Your task to perform on an android device: turn off location Image 0: 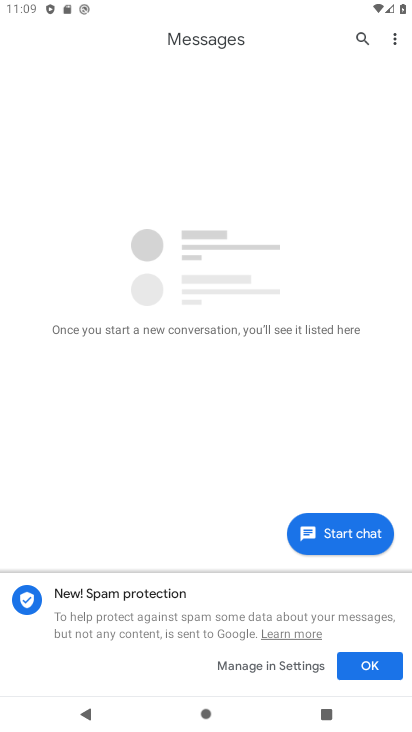
Step 0: press home button
Your task to perform on an android device: turn off location Image 1: 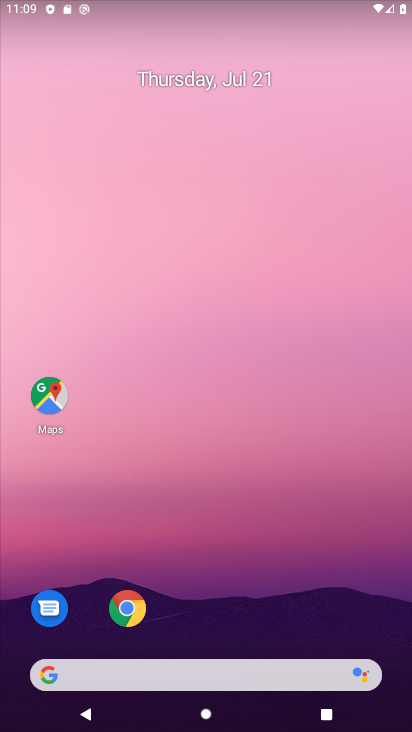
Step 1: press home button
Your task to perform on an android device: turn off location Image 2: 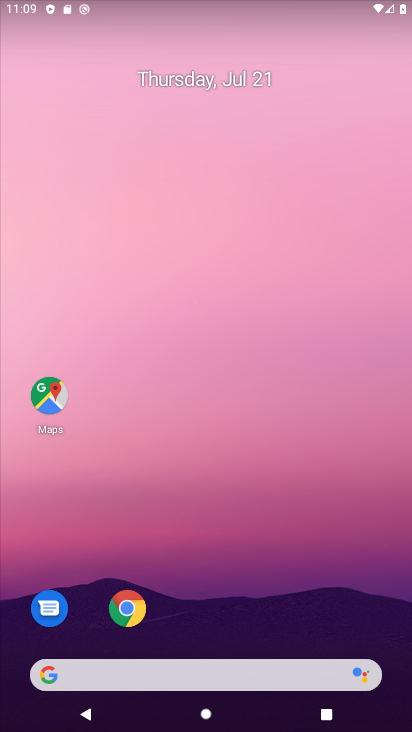
Step 2: drag from (187, 622) to (195, 17)
Your task to perform on an android device: turn off location Image 3: 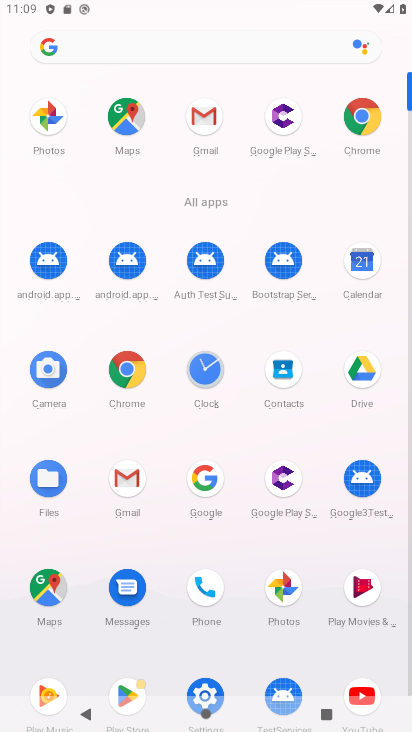
Step 3: click (211, 677)
Your task to perform on an android device: turn off location Image 4: 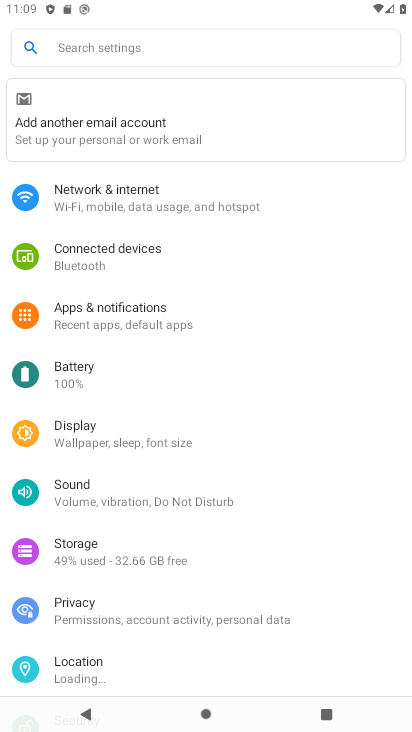
Step 4: click (92, 661)
Your task to perform on an android device: turn off location Image 5: 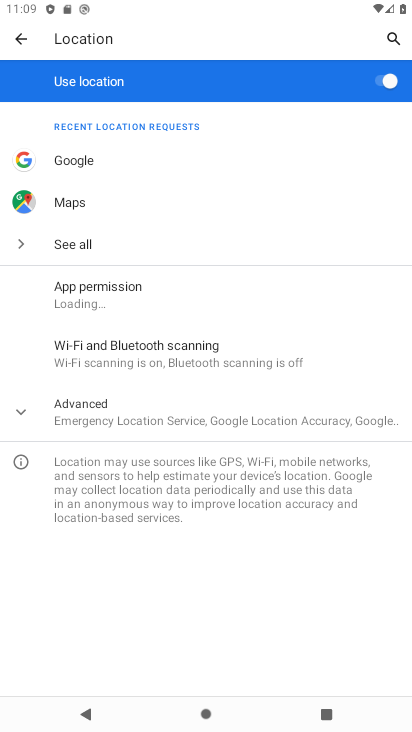
Step 5: click (365, 85)
Your task to perform on an android device: turn off location Image 6: 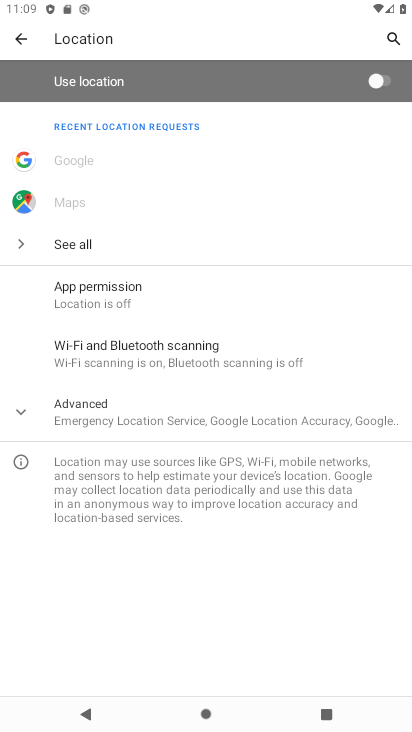
Step 6: task complete